Your task to perform on an android device: create a new album in the google photos Image 0: 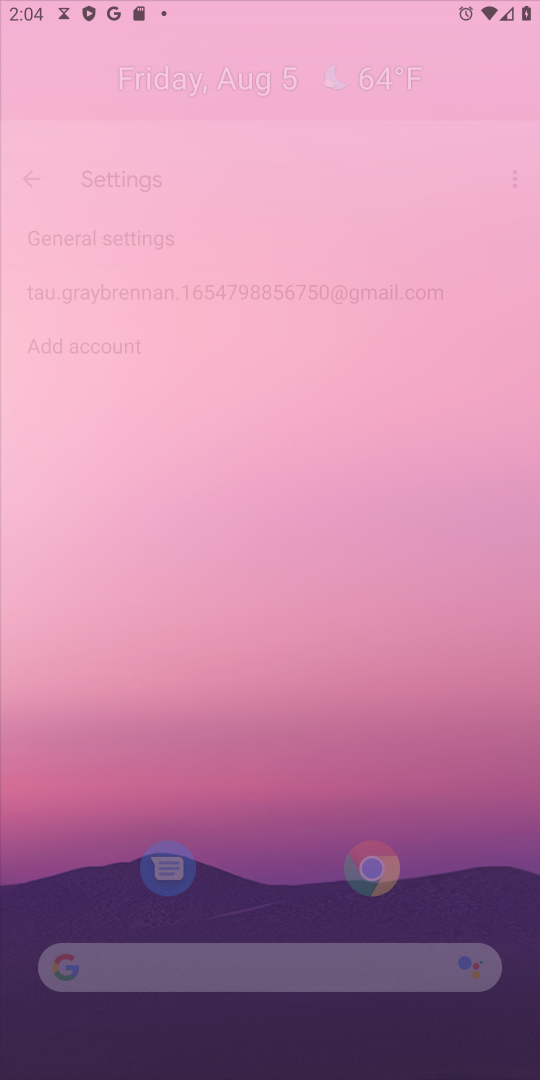
Step 0: press home button
Your task to perform on an android device: create a new album in the google photos Image 1: 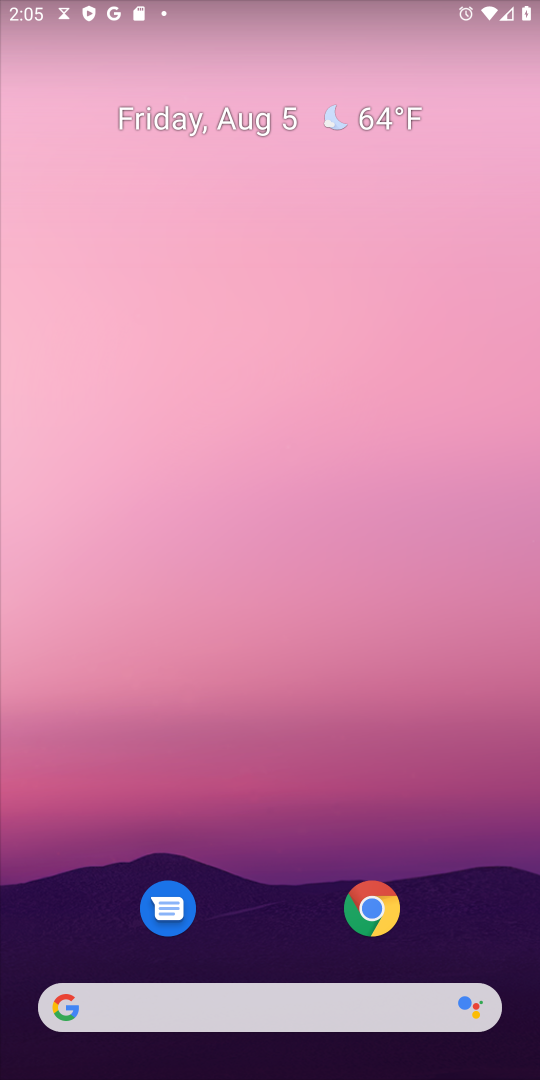
Step 1: drag from (275, 823) to (355, 196)
Your task to perform on an android device: create a new album in the google photos Image 2: 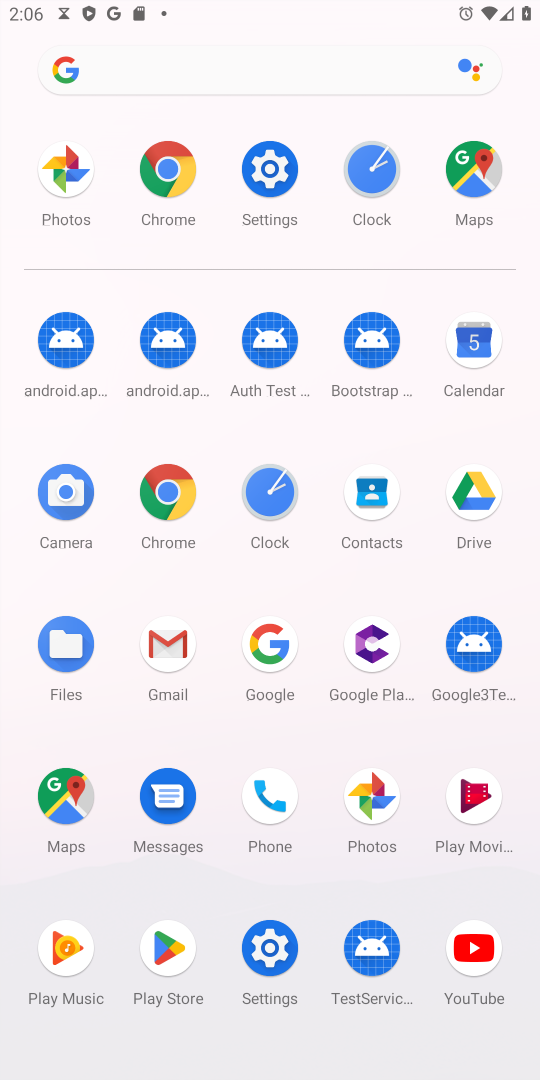
Step 2: click (396, 847)
Your task to perform on an android device: create a new album in the google photos Image 3: 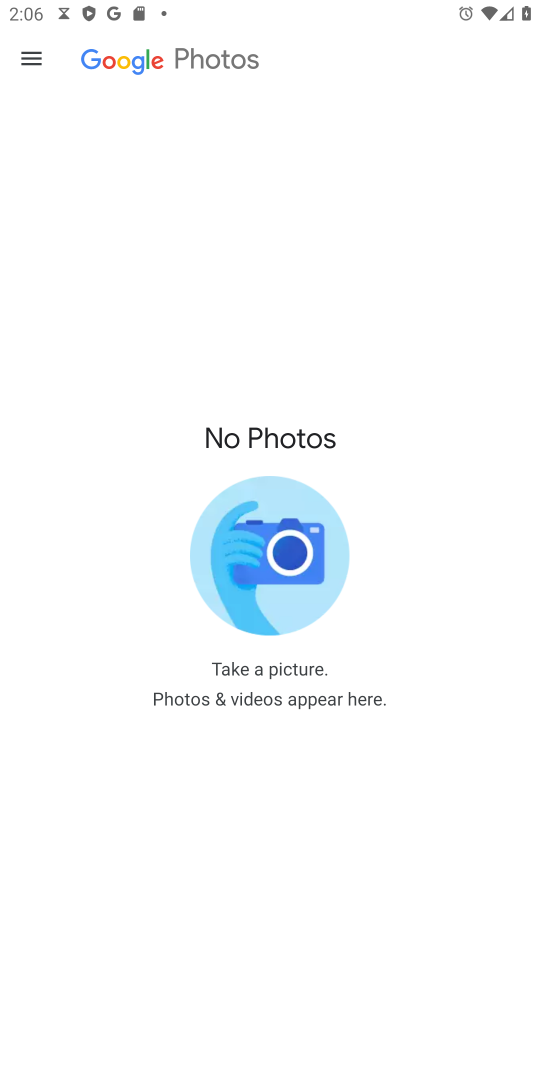
Step 3: task complete